Your task to perform on an android device: Go to battery settings Image 0: 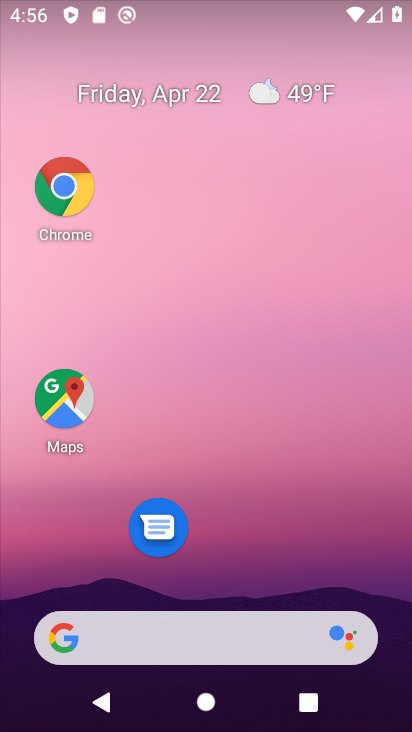
Step 0: drag from (302, 537) to (219, 317)
Your task to perform on an android device: Go to battery settings Image 1: 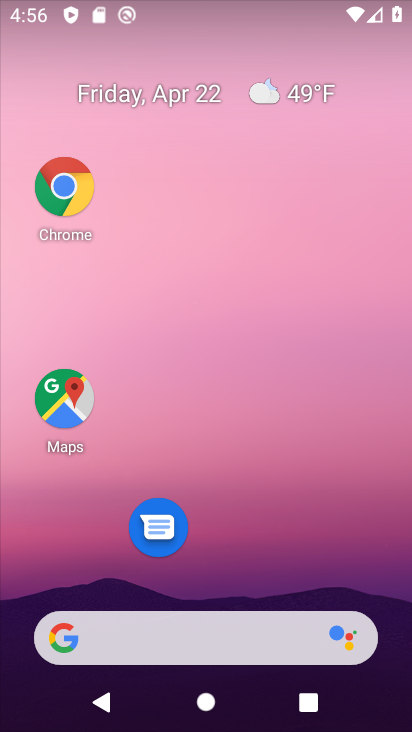
Step 1: drag from (314, 466) to (146, 31)
Your task to perform on an android device: Go to battery settings Image 2: 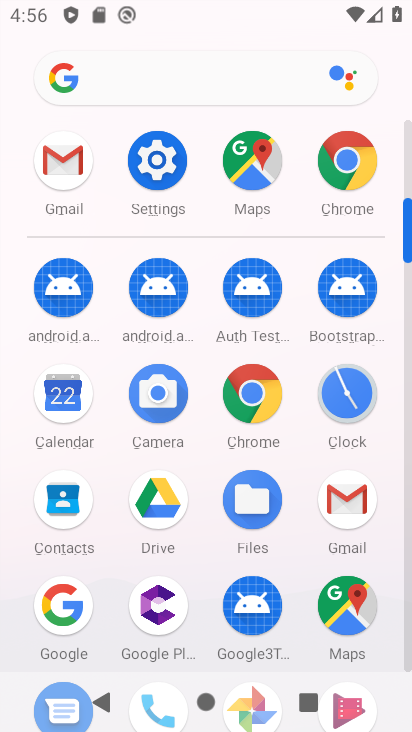
Step 2: click (155, 168)
Your task to perform on an android device: Go to battery settings Image 3: 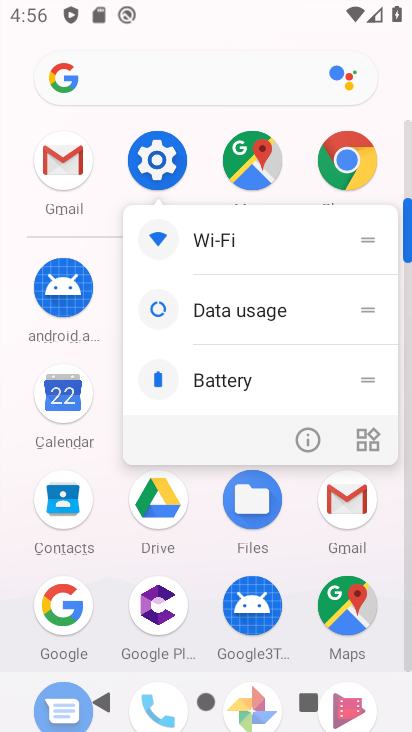
Step 3: click (170, 171)
Your task to perform on an android device: Go to battery settings Image 4: 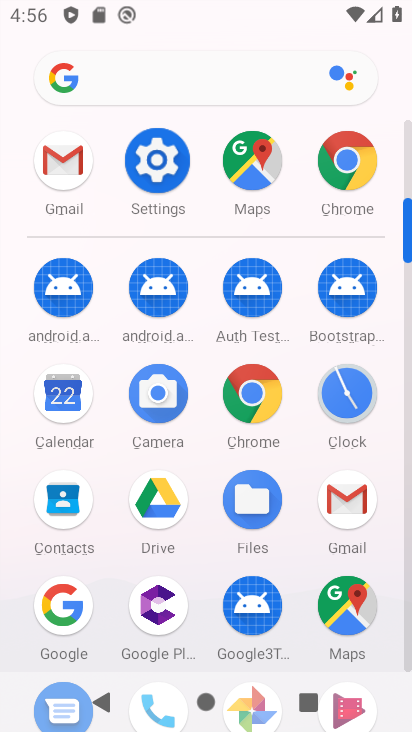
Step 4: click (170, 173)
Your task to perform on an android device: Go to battery settings Image 5: 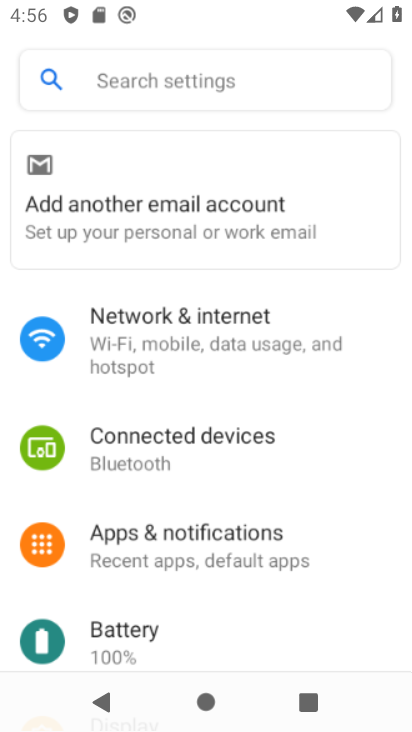
Step 5: click (169, 173)
Your task to perform on an android device: Go to battery settings Image 6: 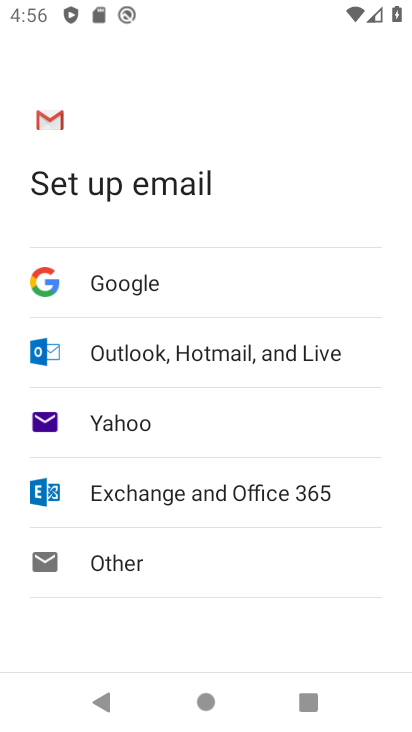
Step 6: press home button
Your task to perform on an android device: Go to battery settings Image 7: 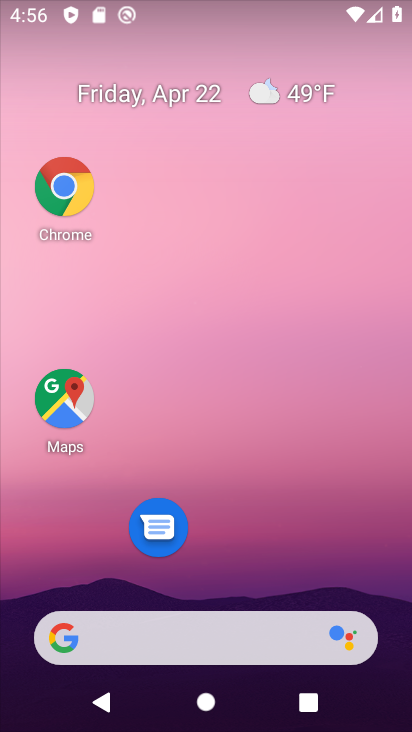
Step 7: drag from (274, 621) to (182, 140)
Your task to perform on an android device: Go to battery settings Image 8: 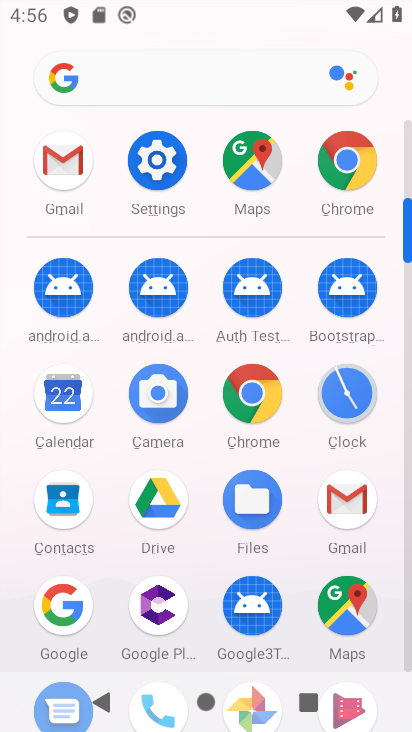
Step 8: click (155, 167)
Your task to perform on an android device: Go to battery settings Image 9: 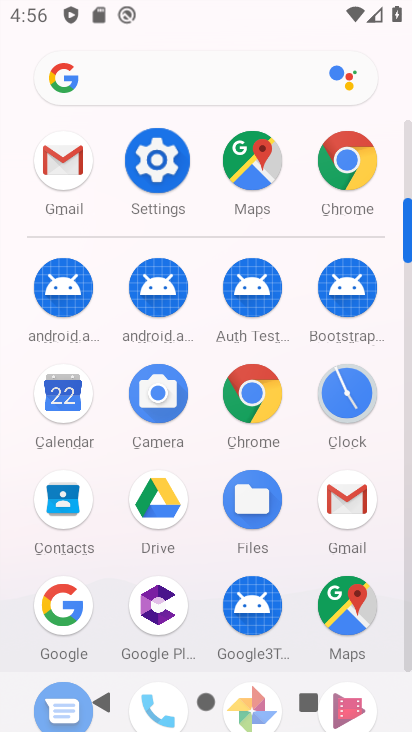
Step 9: click (156, 167)
Your task to perform on an android device: Go to battery settings Image 10: 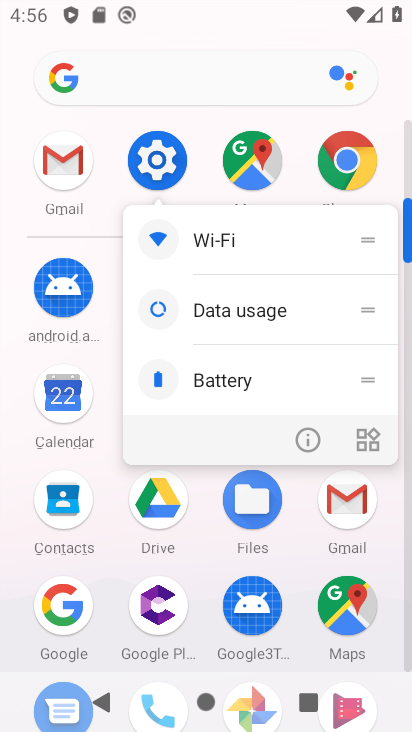
Step 10: click (158, 180)
Your task to perform on an android device: Go to battery settings Image 11: 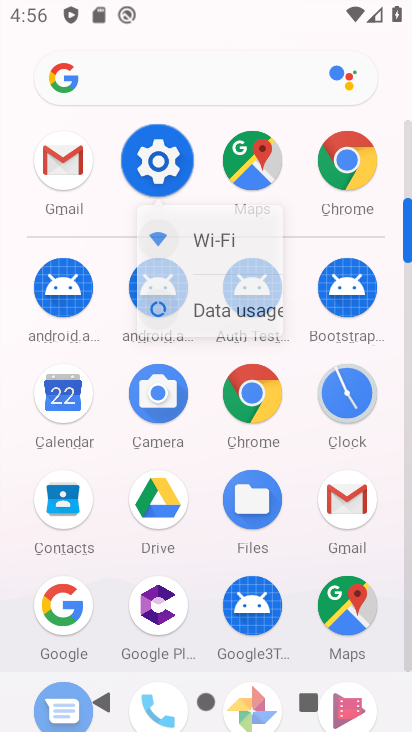
Step 11: click (153, 169)
Your task to perform on an android device: Go to battery settings Image 12: 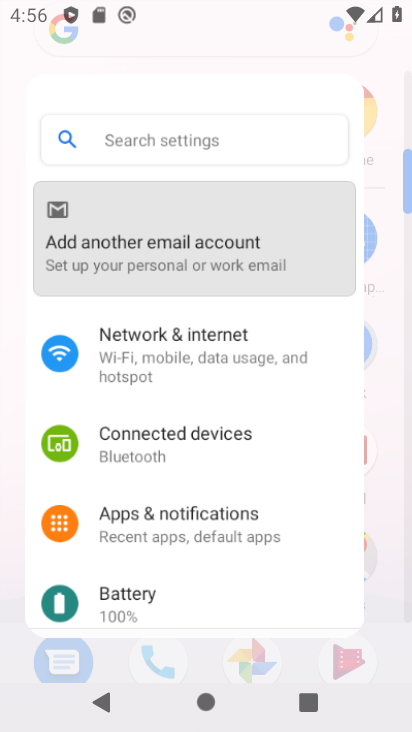
Step 12: click (153, 169)
Your task to perform on an android device: Go to battery settings Image 13: 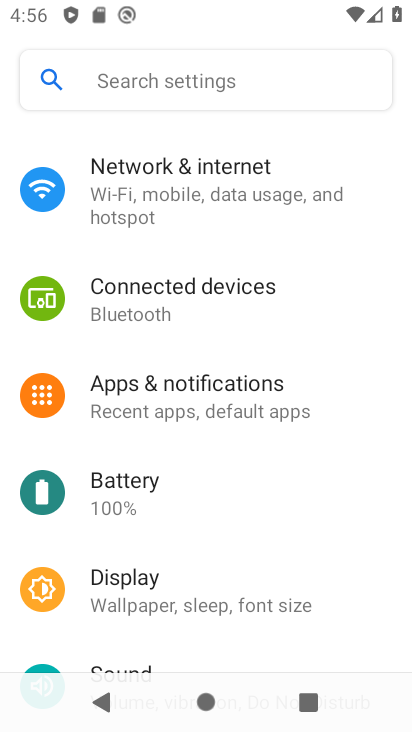
Step 13: click (157, 171)
Your task to perform on an android device: Go to battery settings Image 14: 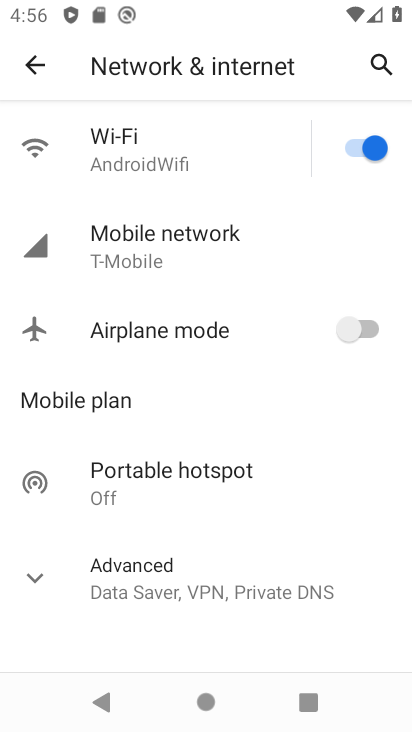
Step 14: click (37, 62)
Your task to perform on an android device: Go to battery settings Image 15: 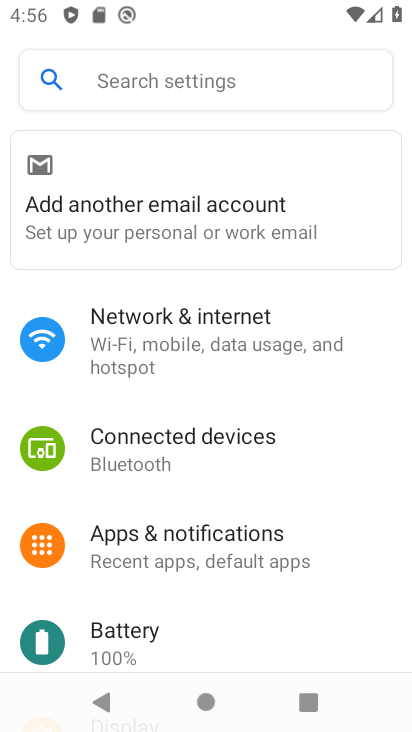
Step 15: drag from (162, 473) to (135, 282)
Your task to perform on an android device: Go to battery settings Image 16: 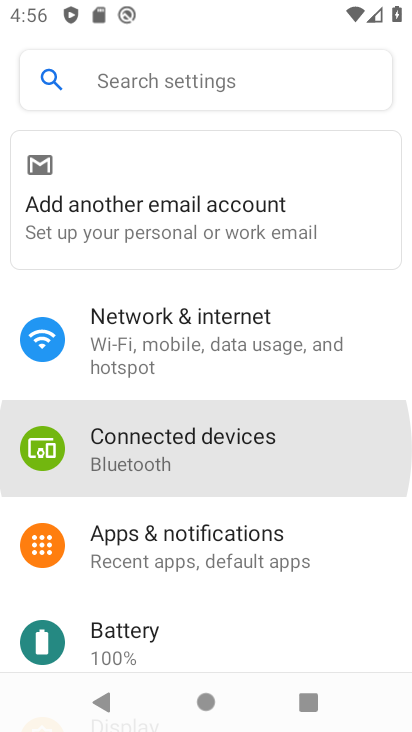
Step 16: drag from (231, 538) to (185, 262)
Your task to perform on an android device: Go to battery settings Image 17: 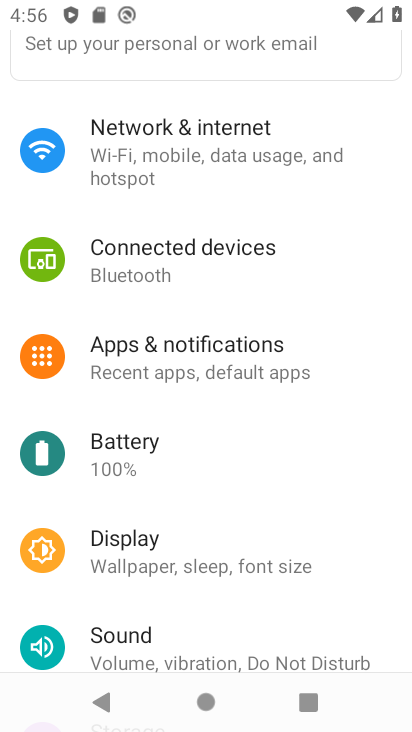
Step 17: drag from (153, 530) to (115, 165)
Your task to perform on an android device: Go to battery settings Image 18: 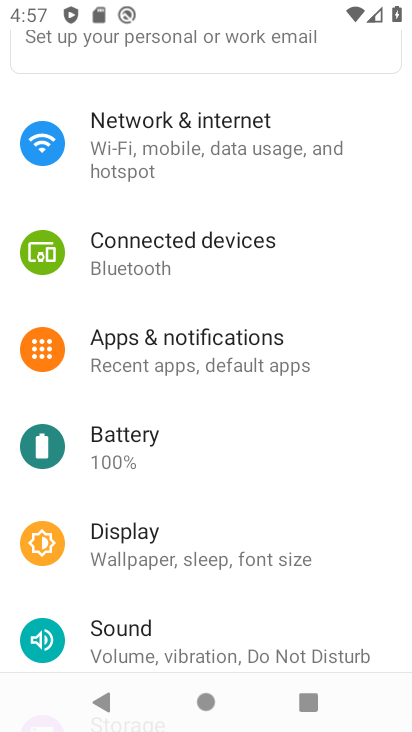
Step 18: click (118, 454)
Your task to perform on an android device: Go to battery settings Image 19: 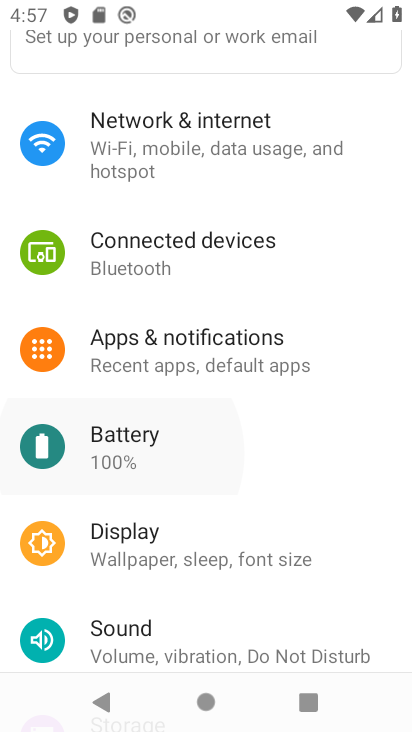
Step 19: click (118, 456)
Your task to perform on an android device: Go to battery settings Image 20: 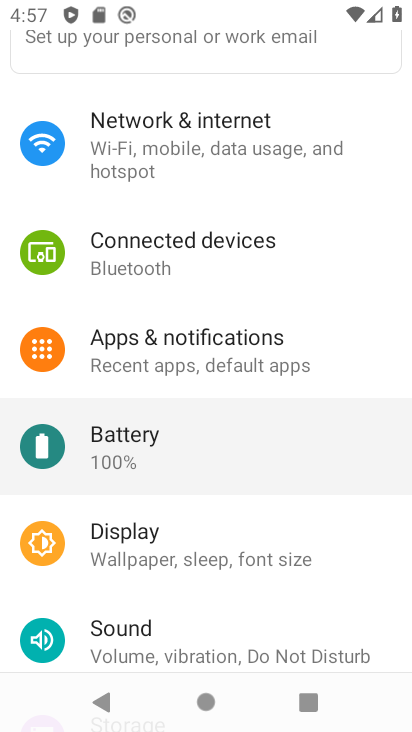
Step 20: click (117, 458)
Your task to perform on an android device: Go to battery settings Image 21: 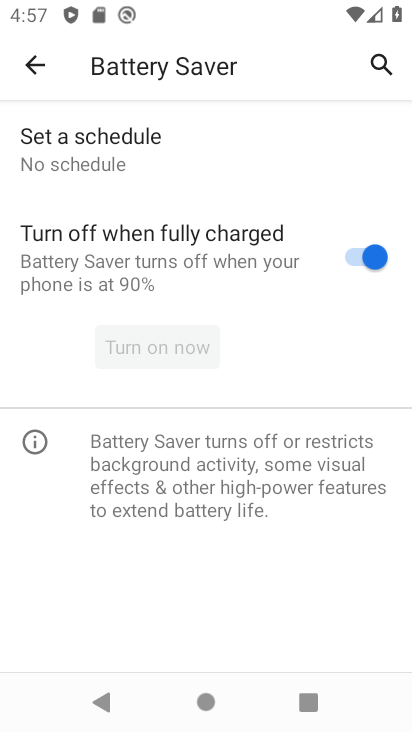
Step 21: click (31, 58)
Your task to perform on an android device: Go to battery settings Image 22: 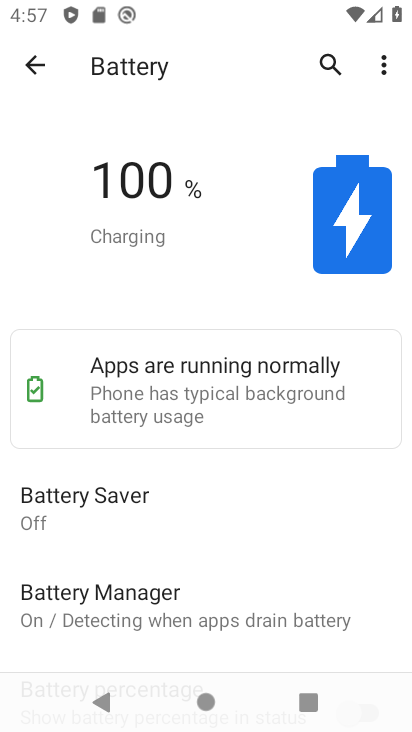
Step 22: task complete